Your task to perform on an android device: Show me productivity apps on the Play Store Image 0: 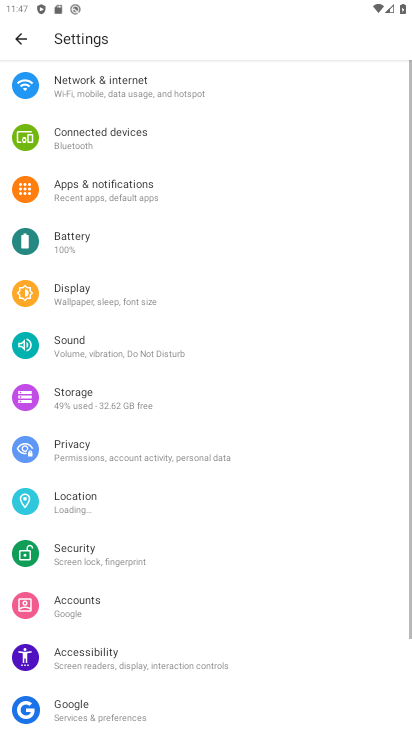
Step 0: drag from (191, 518) to (191, 58)
Your task to perform on an android device: Show me productivity apps on the Play Store Image 1: 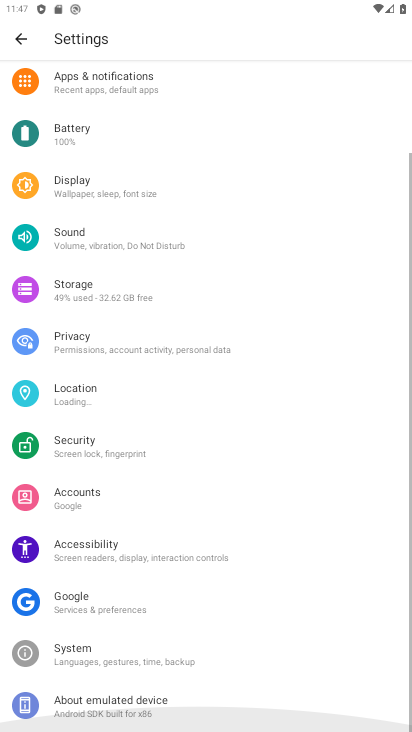
Step 1: drag from (180, 14) to (275, 590)
Your task to perform on an android device: Show me productivity apps on the Play Store Image 2: 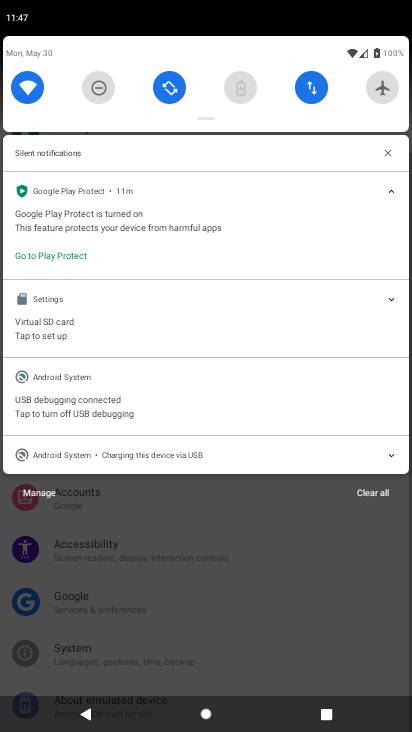
Step 2: press home button
Your task to perform on an android device: Show me productivity apps on the Play Store Image 3: 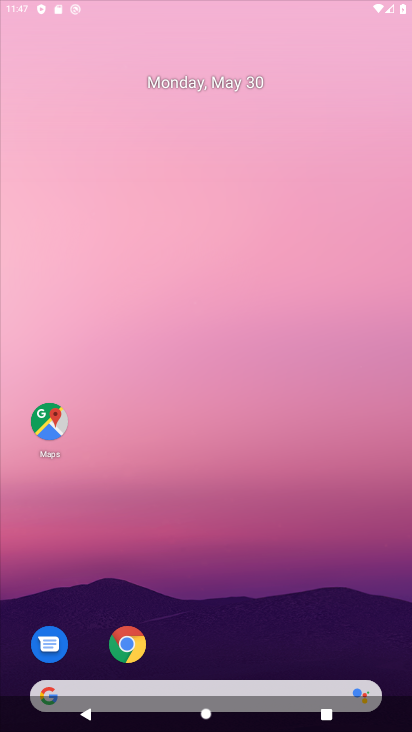
Step 3: drag from (191, 575) to (241, 137)
Your task to perform on an android device: Show me productivity apps on the Play Store Image 4: 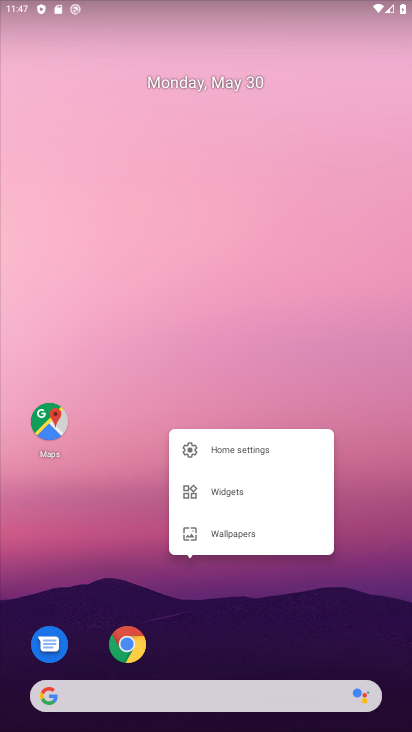
Step 4: drag from (220, 641) to (224, 161)
Your task to perform on an android device: Show me productivity apps on the Play Store Image 5: 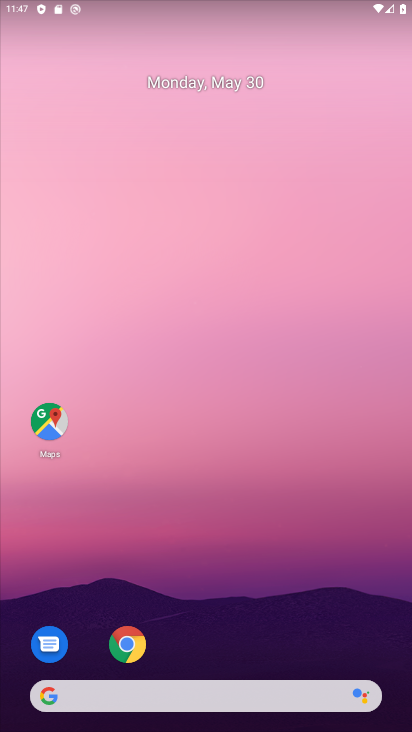
Step 5: drag from (190, 650) to (248, 30)
Your task to perform on an android device: Show me productivity apps on the Play Store Image 6: 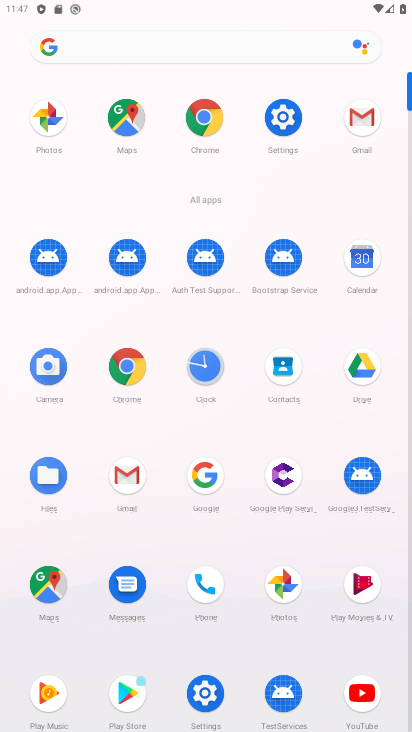
Step 6: click (136, 692)
Your task to perform on an android device: Show me productivity apps on the Play Store Image 7: 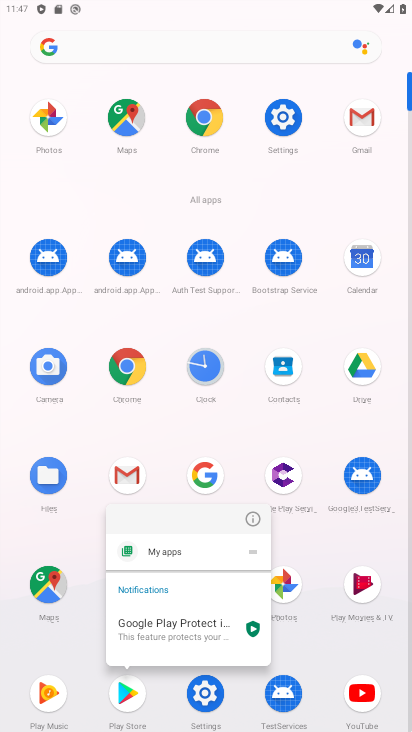
Step 7: click (246, 527)
Your task to perform on an android device: Show me productivity apps on the Play Store Image 8: 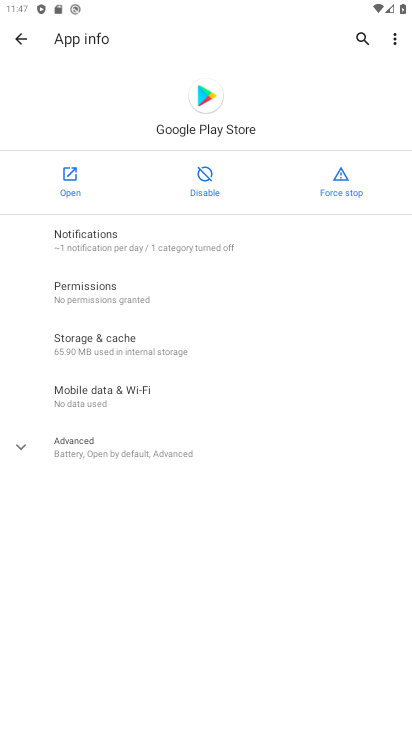
Step 8: click (68, 174)
Your task to perform on an android device: Show me productivity apps on the Play Store Image 9: 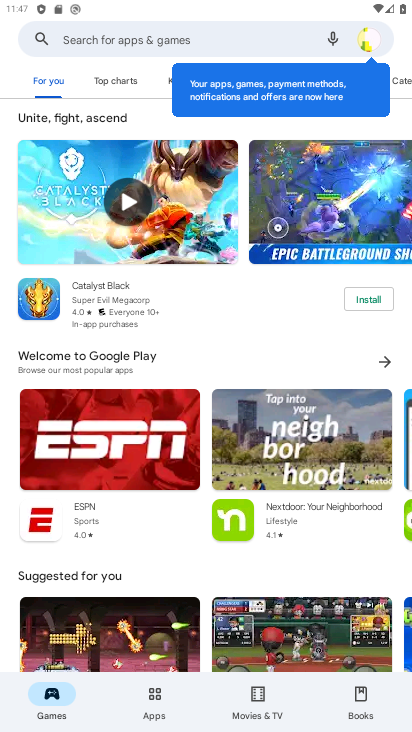
Step 9: task complete